Your task to perform on an android device: Go to Wikipedia Image 0: 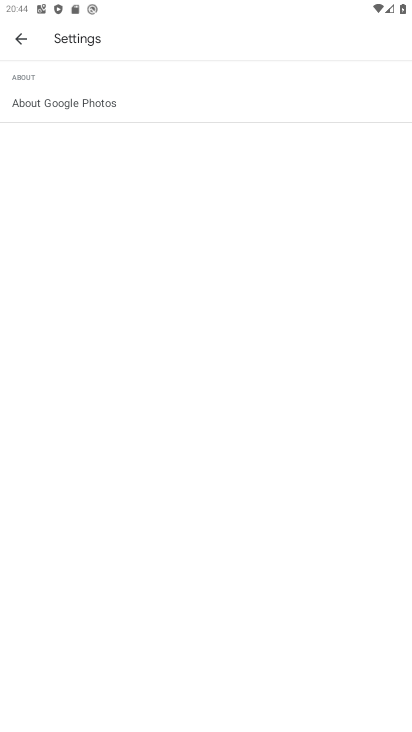
Step 0: press back button
Your task to perform on an android device: Go to Wikipedia Image 1: 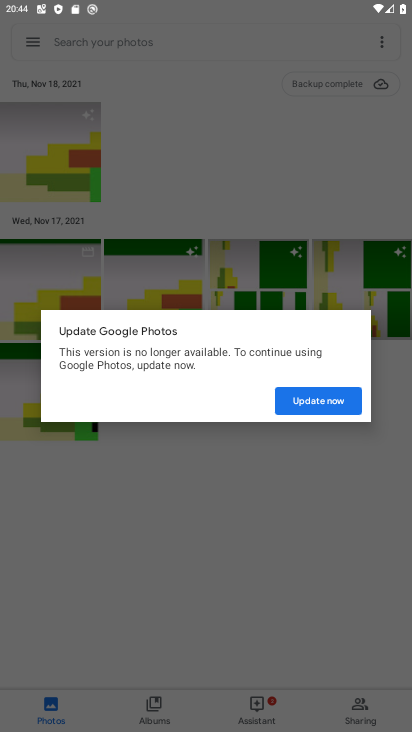
Step 1: press back button
Your task to perform on an android device: Go to Wikipedia Image 2: 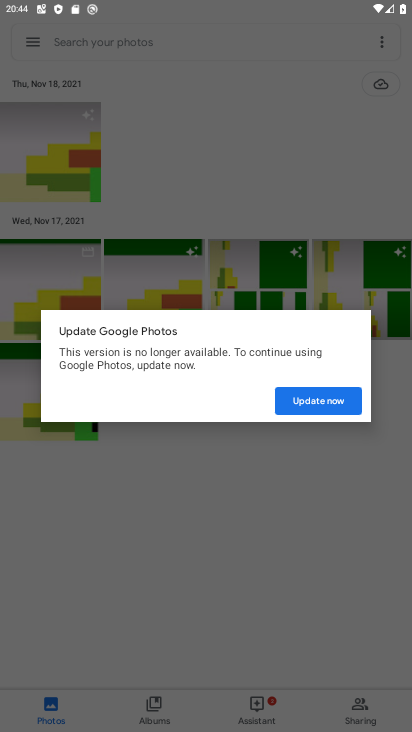
Step 2: press back button
Your task to perform on an android device: Go to Wikipedia Image 3: 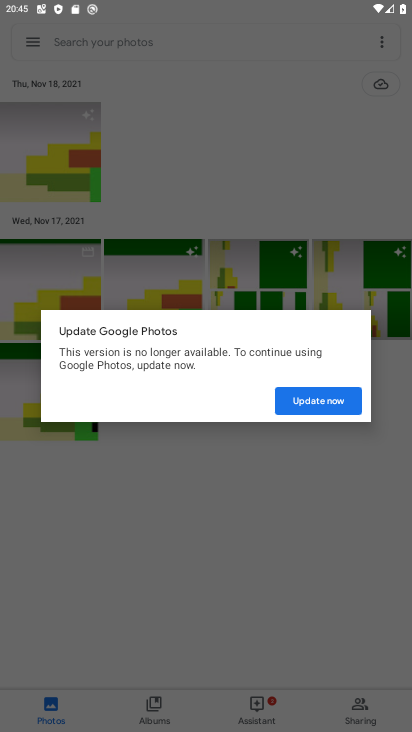
Step 3: press back button
Your task to perform on an android device: Go to Wikipedia Image 4: 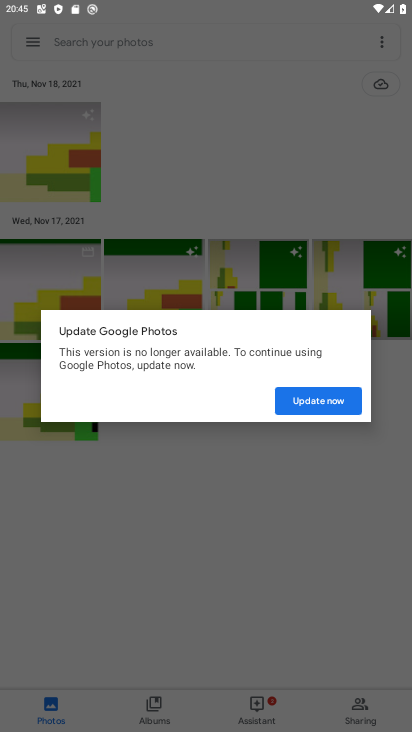
Step 4: press home button
Your task to perform on an android device: Go to Wikipedia Image 5: 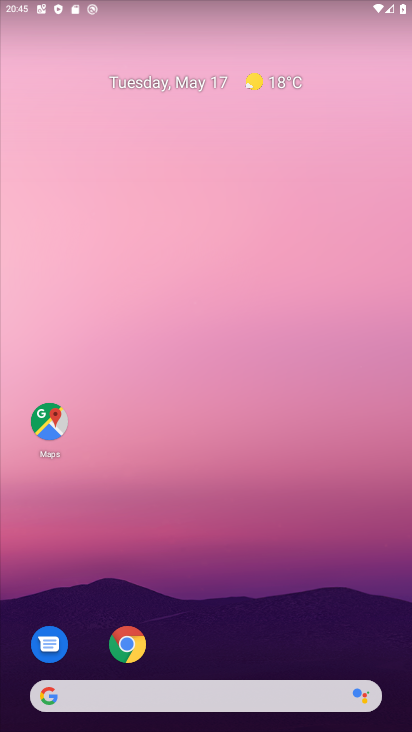
Step 5: click (125, 650)
Your task to perform on an android device: Go to Wikipedia Image 6: 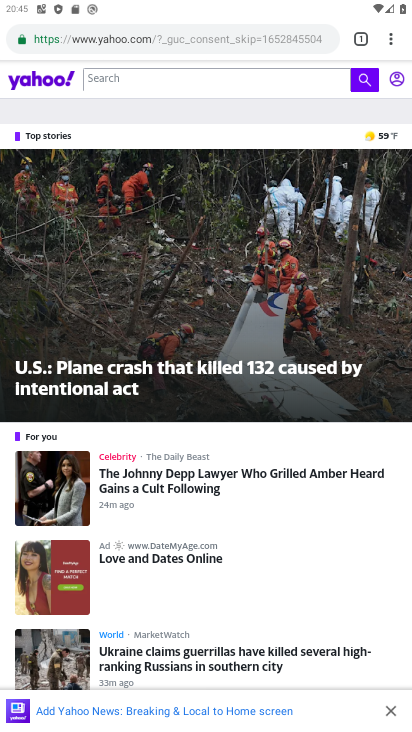
Step 6: click (368, 41)
Your task to perform on an android device: Go to Wikipedia Image 7: 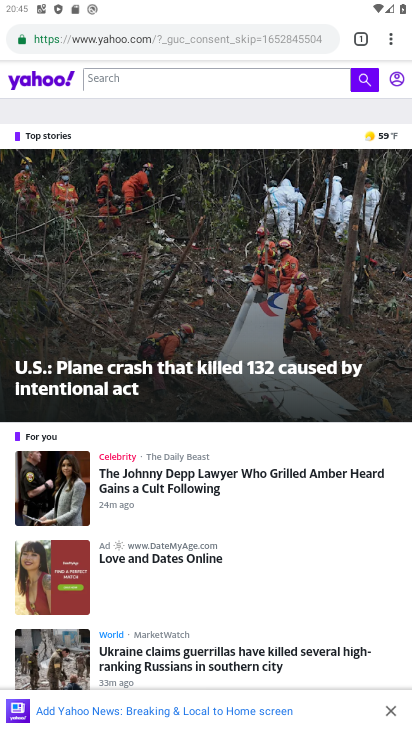
Step 7: click (361, 42)
Your task to perform on an android device: Go to Wikipedia Image 8: 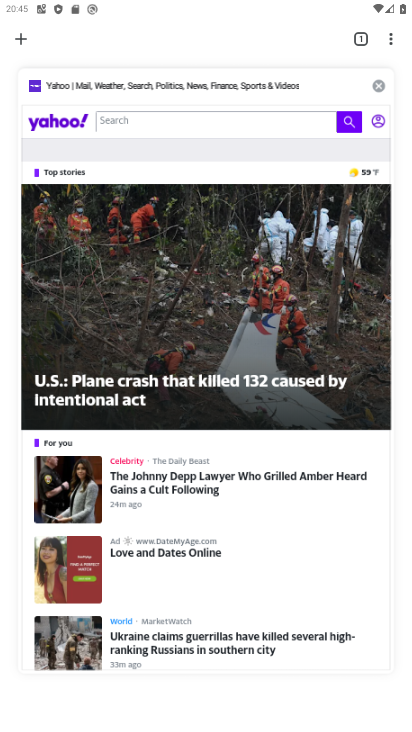
Step 8: click (17, 44)
Your task to perform on an android device: Go to Wikipedia Image 9: 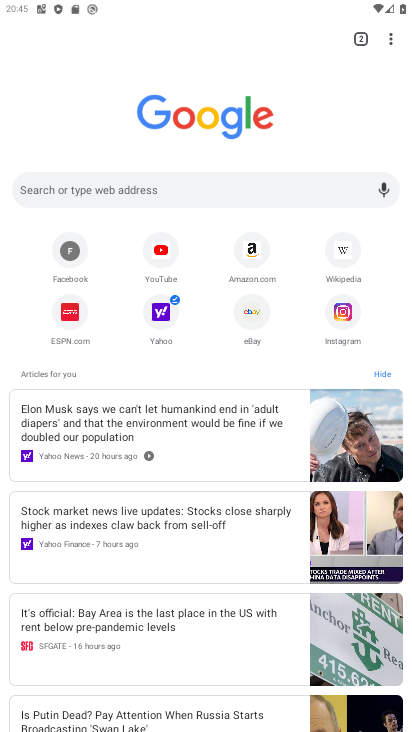
Step 9: click (345, 260)
Your task to perform on an android device: Go to Wikipedia Image 10: 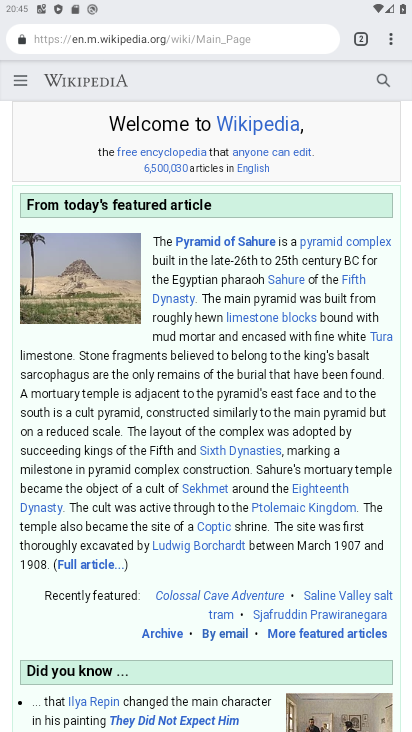
Step 10: task complete